Your task to perform on an android device: Go to settings Image 0: 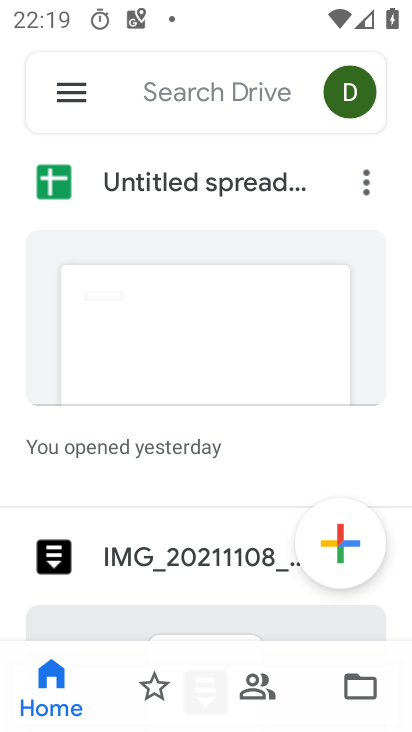
Step 0: press home button
Your task to perform on an android device: Go to settings Image 1: 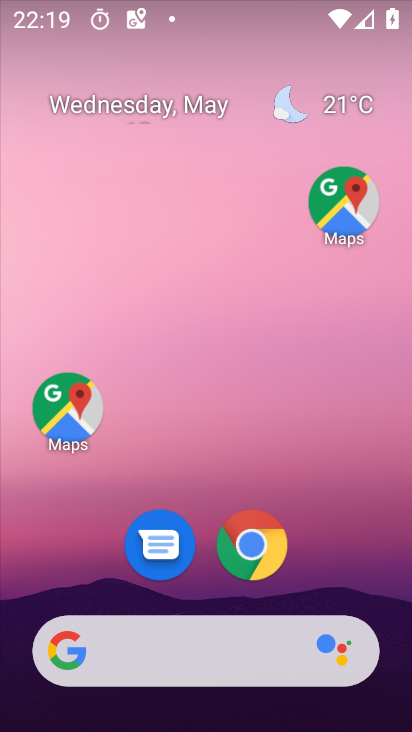
Step 1: drag from (334, 583) to (275, 126)
Your task to perform on an android device: Go to settings Image 2: 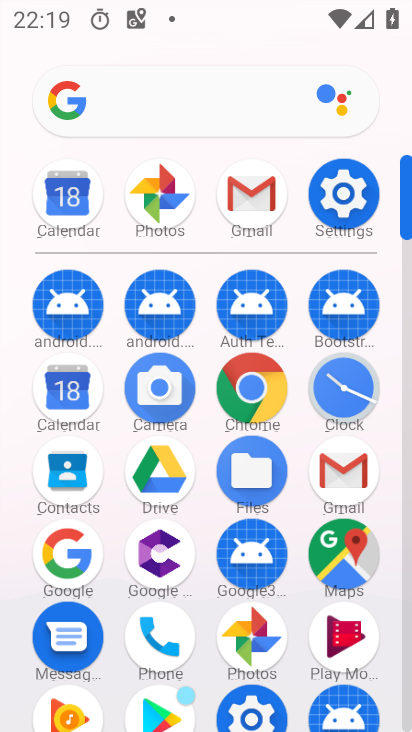
Step 2: click (342, 190)
Your task to perform on an android device: Go to settings Image 3: 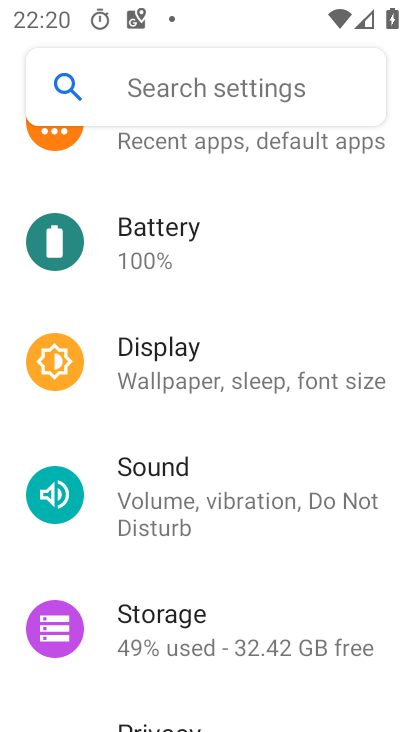
Step 3: task complete